Your task to perform on an android device: toggle javascript in the chrome app Image 0: 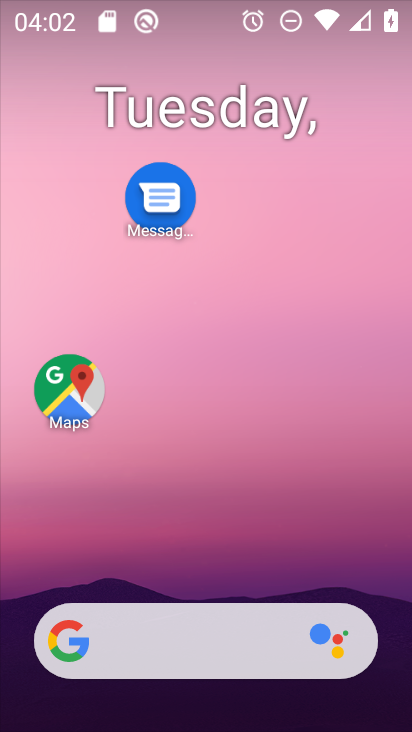
Step 0: drag from (267, 572) to (299, 206)
Your task to perform on an android device: toggle javascript in the chrome app Image 1: 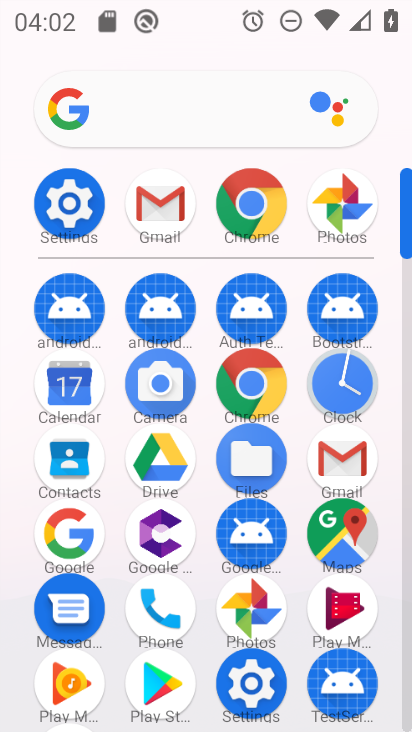
Step 1: click (273, 207)
Your task to perform on an android device: toggle javascript in the chrome app Image 2: 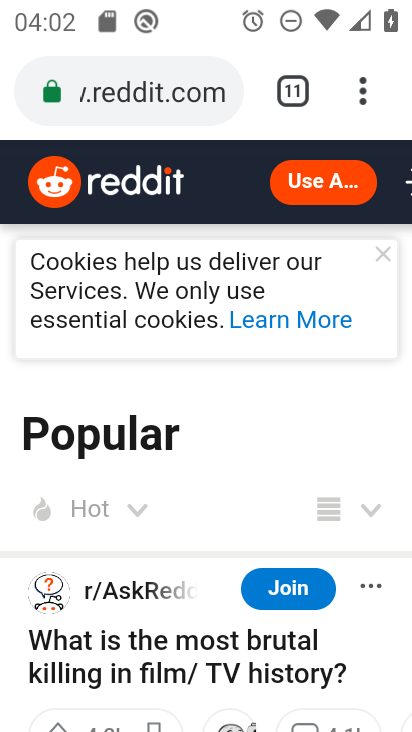
Step 2: drag from (353, 93) to (144, 649)
Your task to perform on an android device: toggle javascript in the chrome app Image 3: 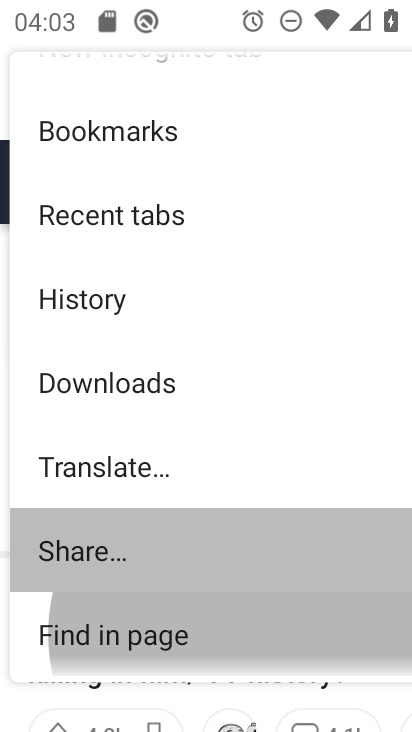
Step 3: click (141, 652)
Your task to perform on an android device: toggle javascript in the chrome app Image 4: 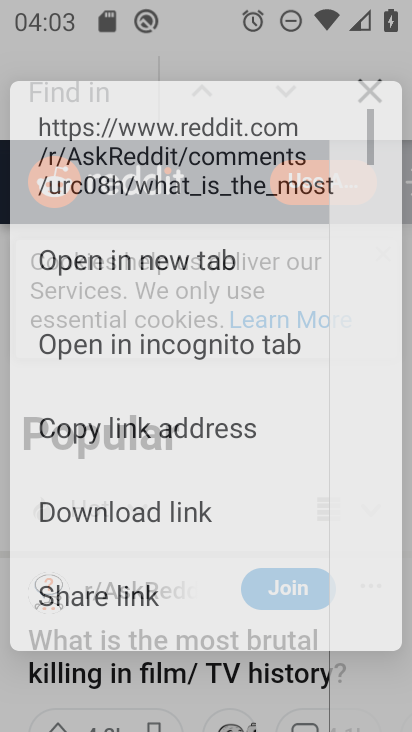
Step 4: drag from (161, 598) to (181, 505)
Your task to perform on an android device: toggle javascript in the chrome app Image 5: 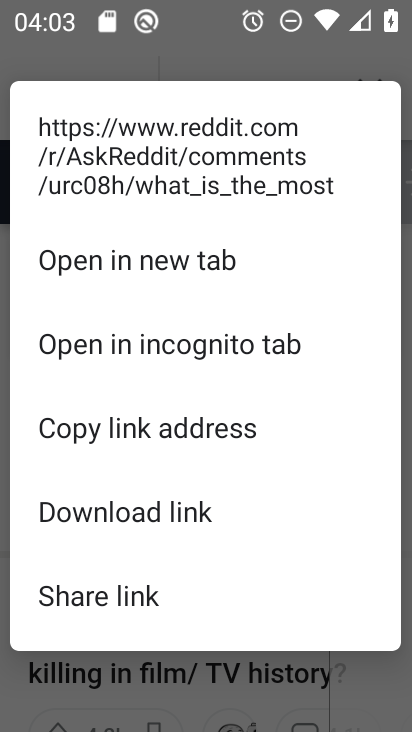
Step 5: press back button
Your task to perform on an android device: toggle javascript in the chrome app Image 6: 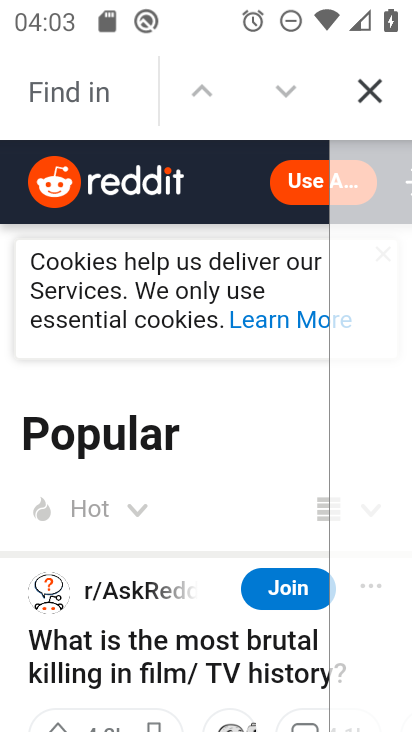
Step 6: click (358, 86)
Your task to perform on an android device: toggle javascript in the chrome app Image 7: 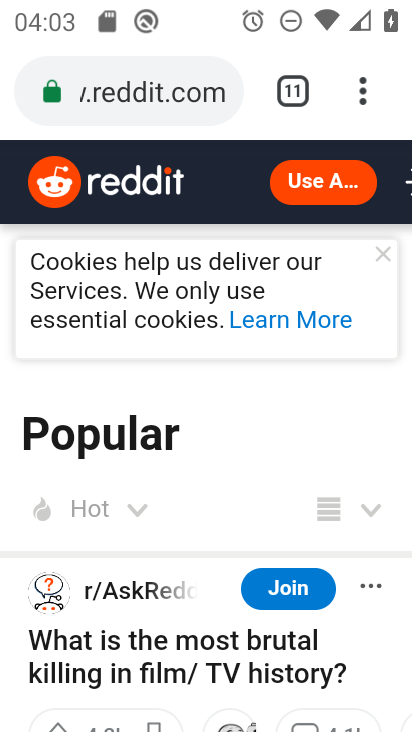
Step 7: click (367, 94)
Your task to perform on an android device: toggle javascript in the chrome app Image 8: 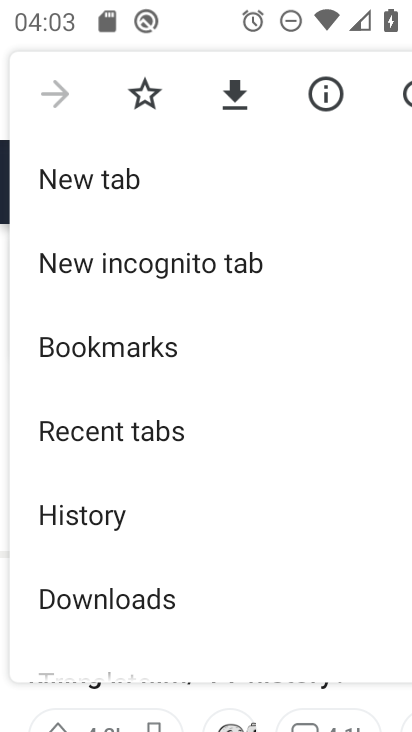
Step 8: drag from (159, 532) to (215, 237)
Your task to perform on an android device: toggle javascript in the chrome app Image 9: 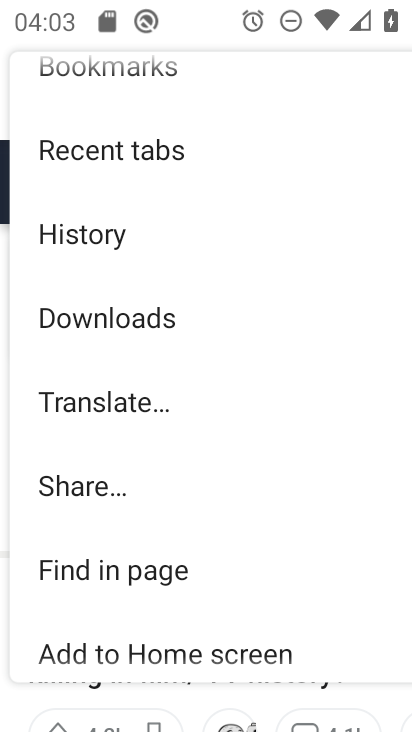
Step 9: drag from (225, 486) to (225, 302)
Your task to perform on an android device: toggle javascript in the chrome app Image 10: 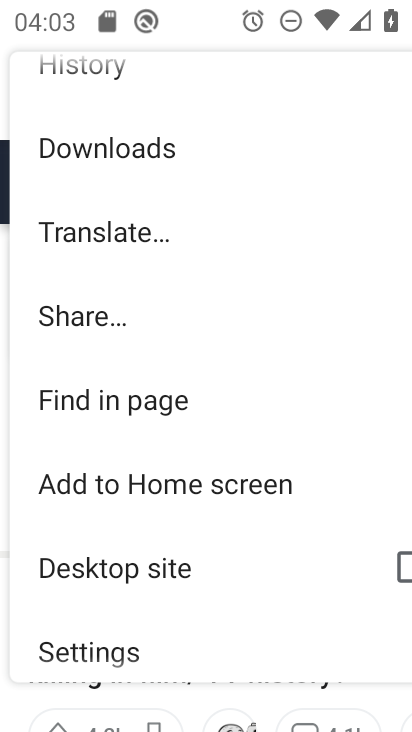
Step 10: click (123, 633)
Your task to perform on an android device: toggle javascript in the chrome app Image 11: 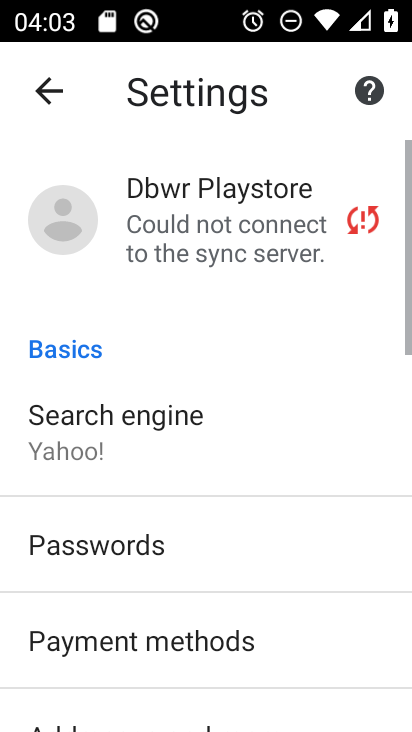
Step 11: drag from (178, 615) to (217, 406)
Your task to perform on an android device: toggle javascript in the chrome app Image 12: 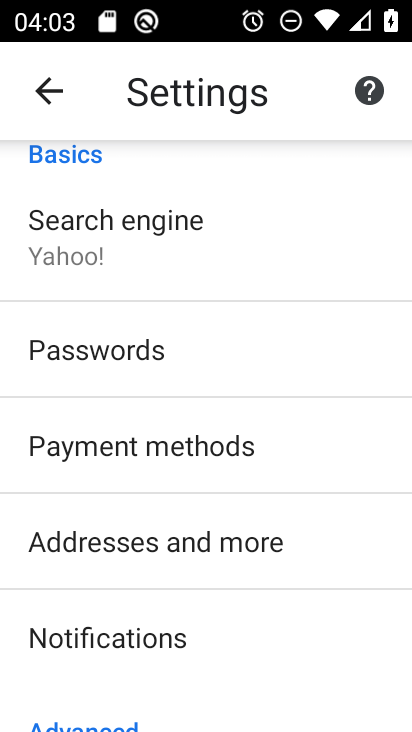
Step 12: drag from (264, 651) to (238, 443)
Your task to perform on an android device: toggle javascript in the chrome app Image 13: 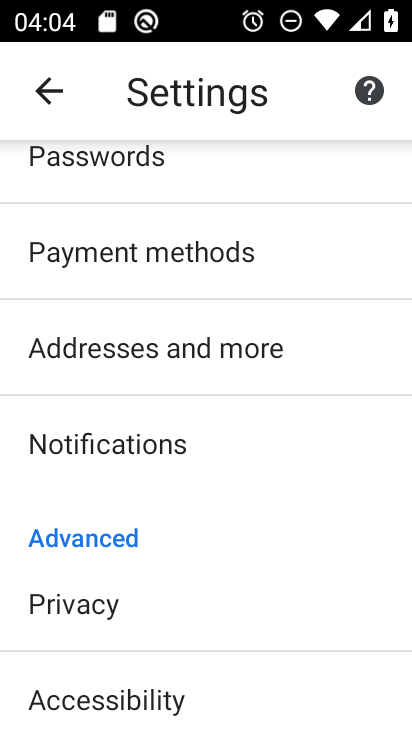
Step 13: drag from (187, 574) to (189, 312)
Your task to perform on an android device: toggle javascript in the chrome app Image 14: 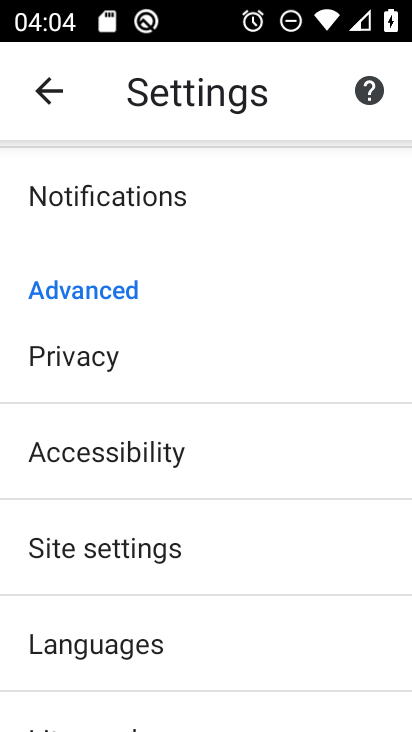
Step 14: drag from (197, 619) to (202, 405)
Your task to perform on an android device: toggle javascript in the chrome app Image 15: 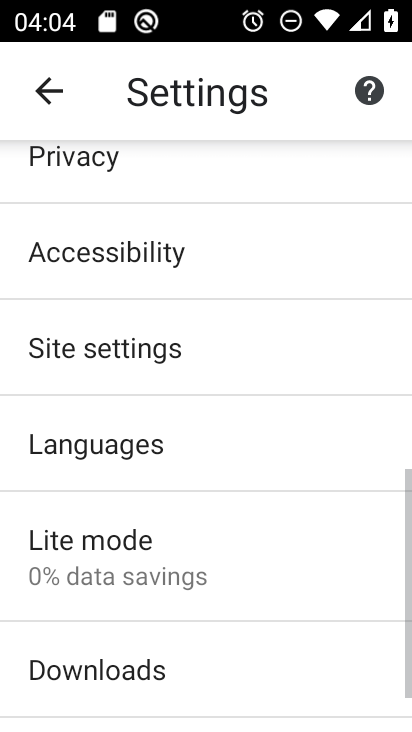
Step 15: drag from (197, 605) to (209, 395)
Your task to perform on an android device: toggle javascript in the chrome app Image 16: 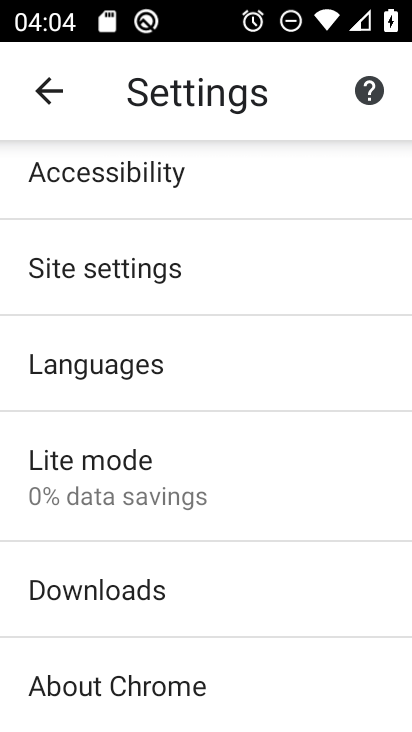
Step 16: drag from (210, 612) to (199, 367)
Your task to perform on an android device: toggle javascript in the chrome app Image 17: 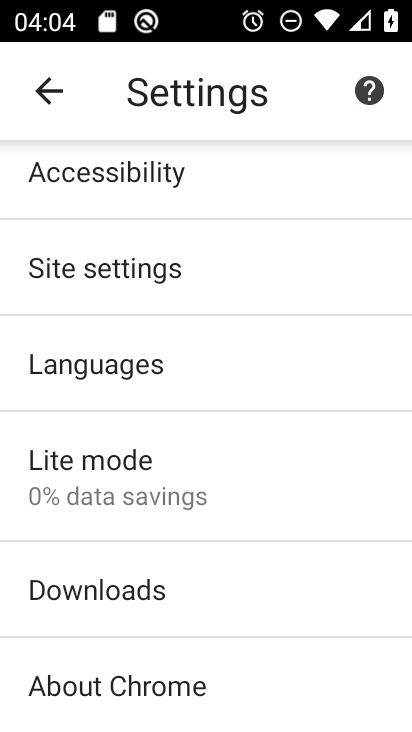
Step 17: click (162, 287)
Your task to perform on an android device: toggle javascript in the chrome app Image 18: 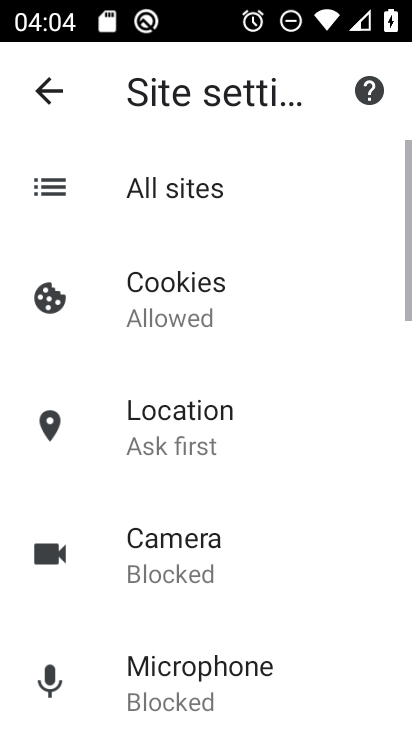
Step 18: drag from (218, 602) to (246, 326)
Your task to perform on an android device: toggle javascript in the chrome app Image 19: 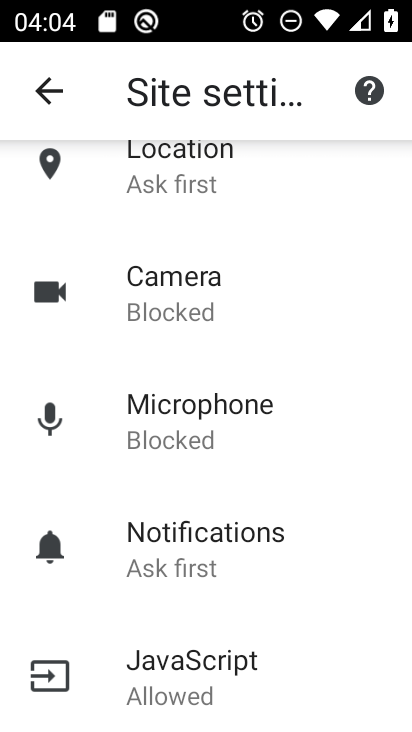
Step 19: drag from (240, 554) to (238, 377)
Your task to perform on an android device: toggle javascript in the chrome app Image 20: 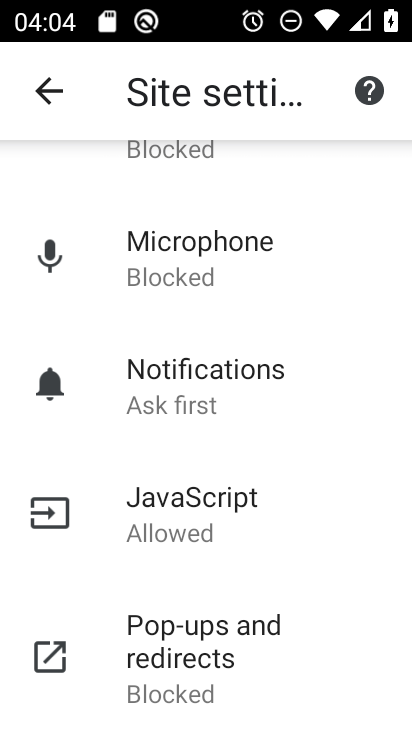
Step 20: click (223, 515)
Your task to perform on an android device: toggle javascript in the chrome app Image 21: 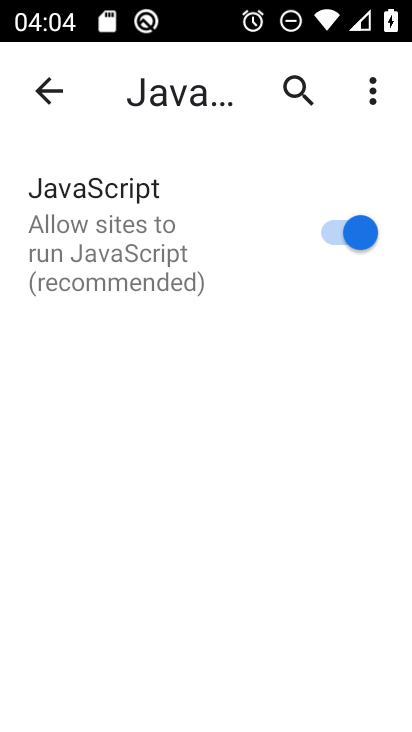
Step 21: click (330, 234)
Your task to perform on an android device: toggle javascript in the chrome app Image 22: 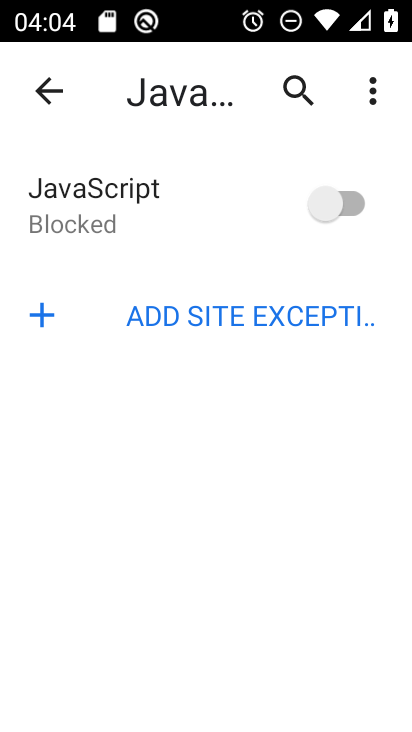
Step 22: task complete